Your task to perform on an android device: change keyboard looks Image 0: 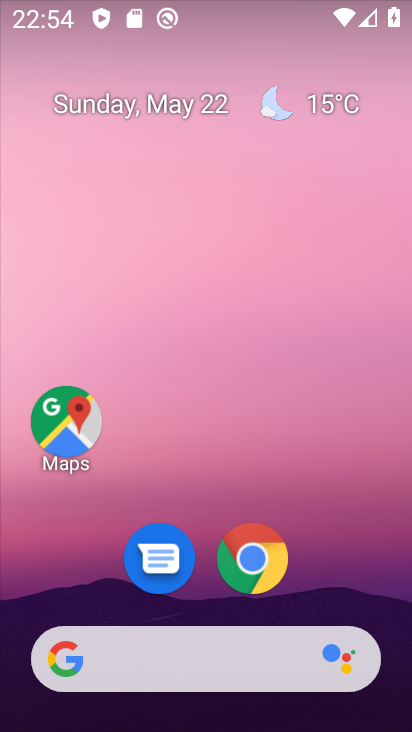
Step 0: drag from (355, 579) to (351, 8)
Your task to perform on an android device: change keyboard looks Image 1: 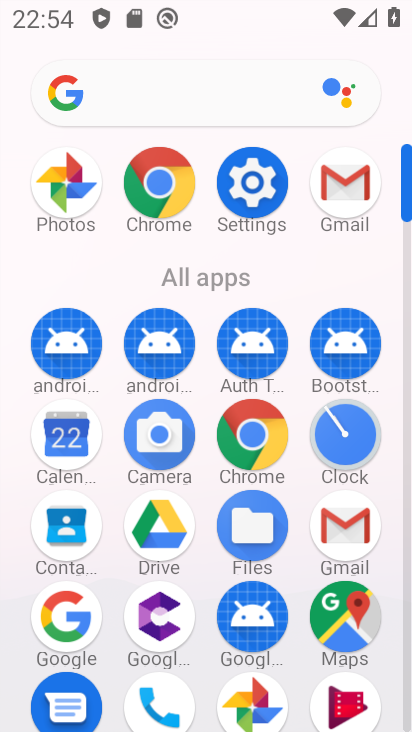
Step 1: click (244, 182)
Your task to perform on an android device: change keyboard looks Image 2: 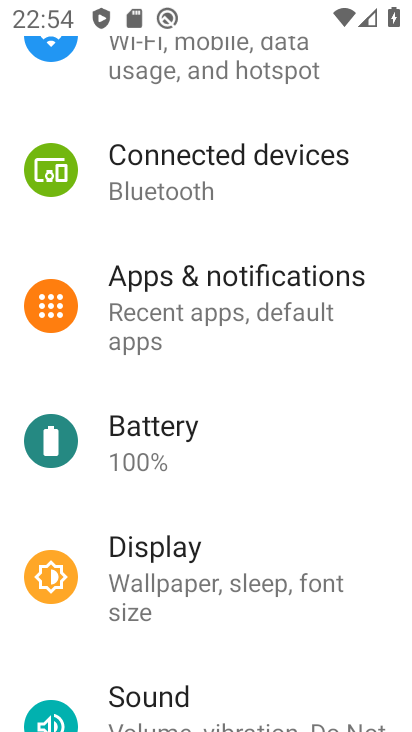
Step 2: drag from (304, 624) to (299, 52)
Your task to perform on an android device: change keyboard looks Image 3: 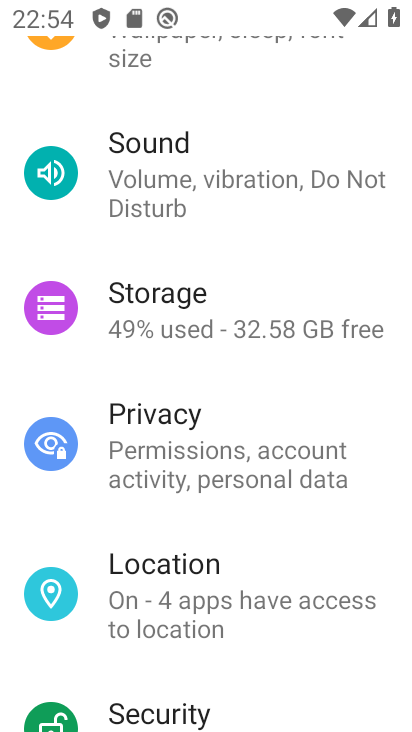
Step 3: drag from (250, 542) to (242, 110)
Your task to perform on an android device: change keyboard looks Image 4: 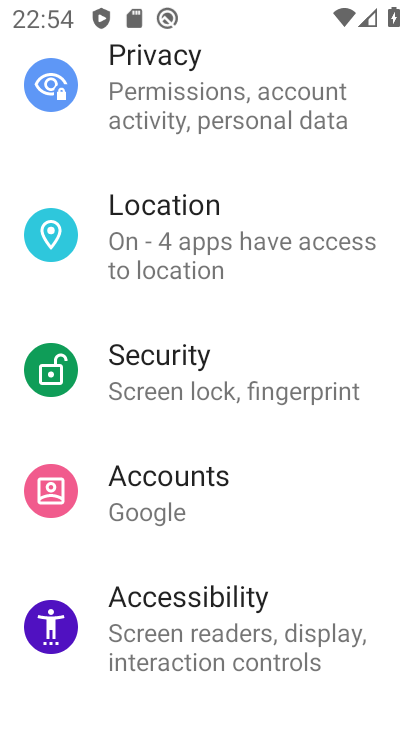
Step 4: drag from (241, 558) to (244, 148)
Your task to perform on an android device: change keyboard looks Image 5: 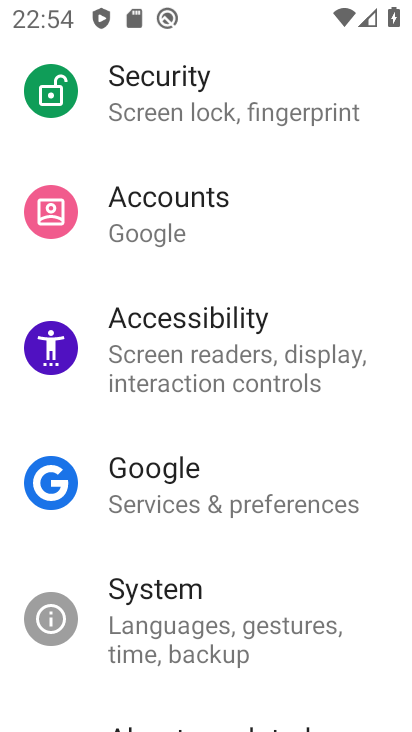
Step 5: click (153, 617)
Your task to perform on an android device: change keyboard looks Image 6: 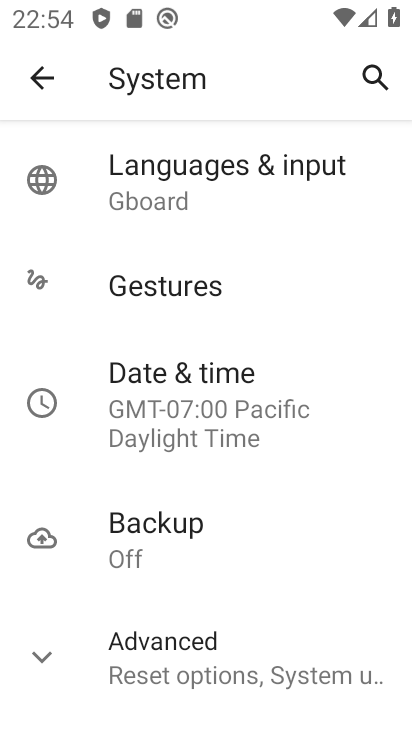
Step 6: click (176, 189)
Your task to perform on an android device: change keyboard looks Image 7: 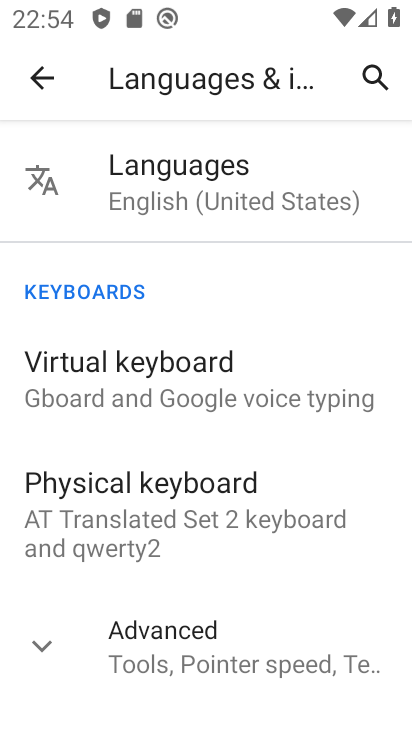
Step 7: click (118, 379)
Your task to perform on an android device: change keyboard looks Image 8: 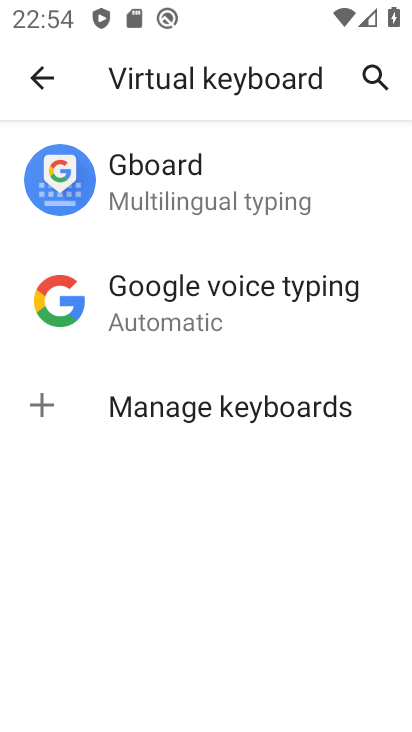
Step 8: click (138, 193)
Your task to perform on an android device: change keyboard looks Image 9: 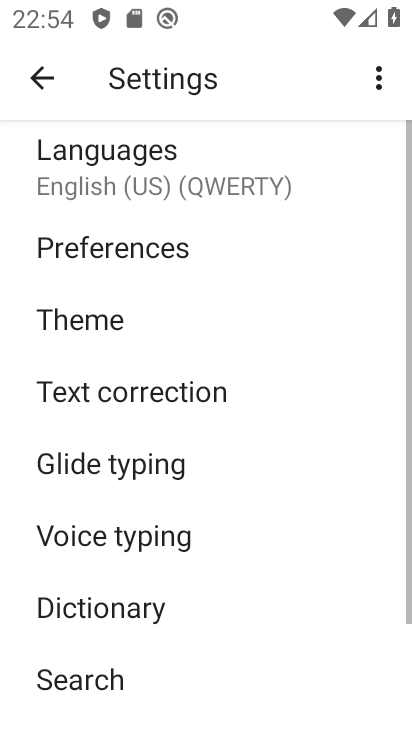
Step 9: click (98, 321)
Your task to perform on an android device: change keyboard looks Image 10: 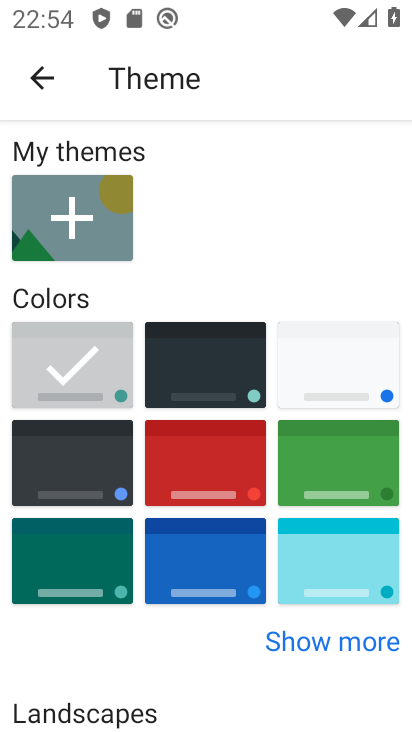
Step 10: click (91, 486)
Your task to perform on an android device: change keyboard looks Image 11: 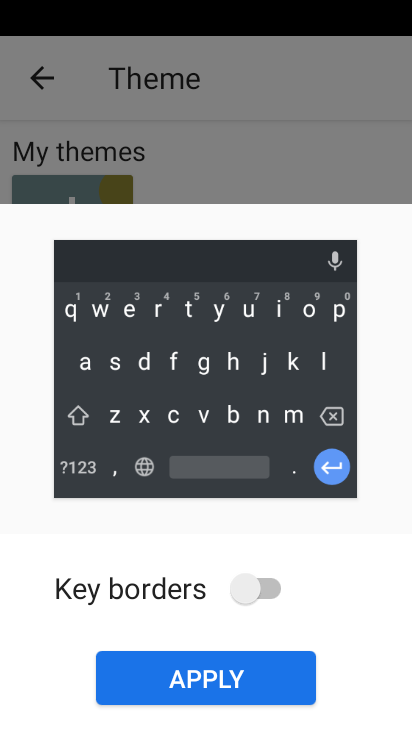
Step 11: click (261, 589)
Your task to perform on an android device: change keyboard looks Image 12: 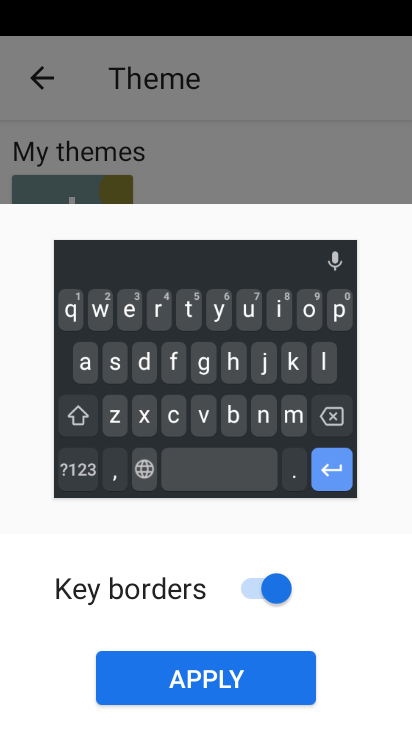
Step 12: click (230, 663)
Your task to perform on an android device: change keyboard looks Image 13: 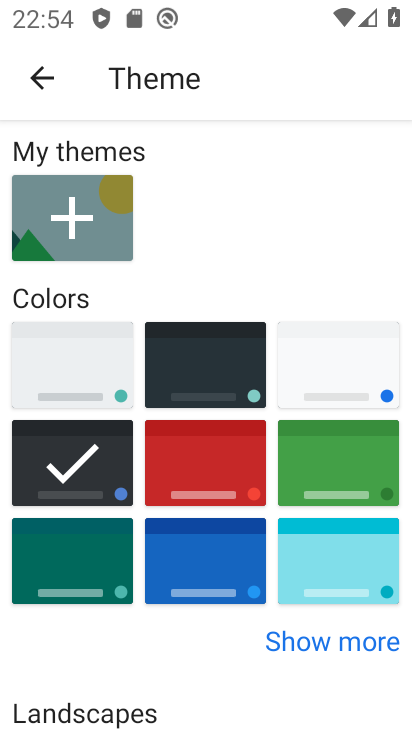
Step 13: task complete